Your task to perform on an android device: Open internet settings Image 0: 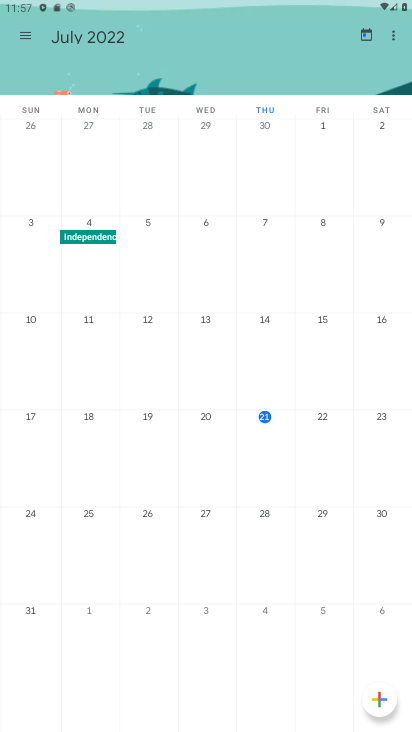
Step 0: task complete